Your task to perform on an android device: snooze an email in the gmail app Image 0: 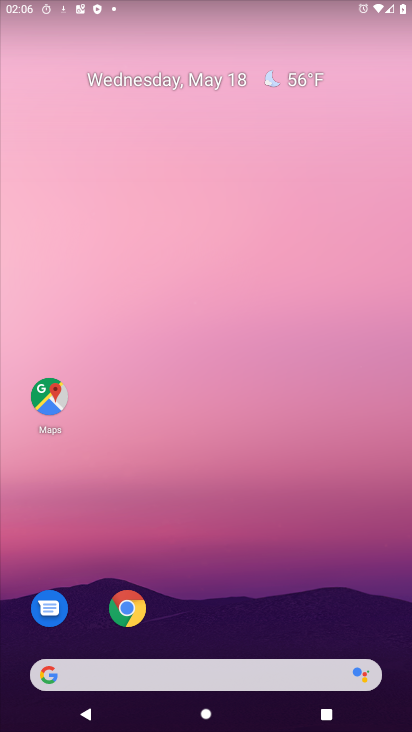
Step 0: drag from (276, 690) to (252, 261)
Your task to perform on an android device: snooze an email in the gmail app Image 1: 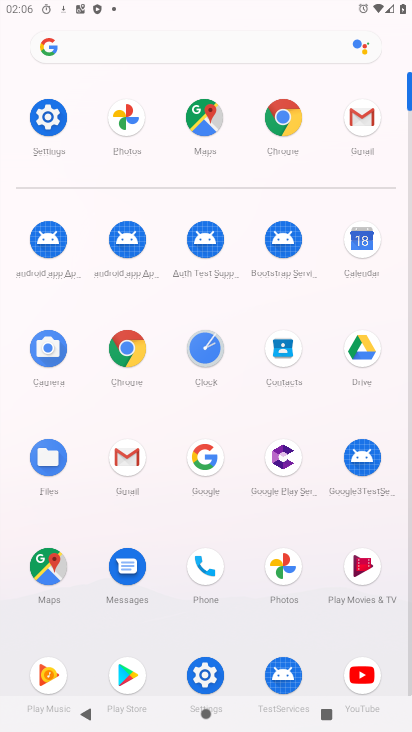
Step 1: click (144, 469)
Your task to perform on an android device: snooze an email in the gmail app Image 2: 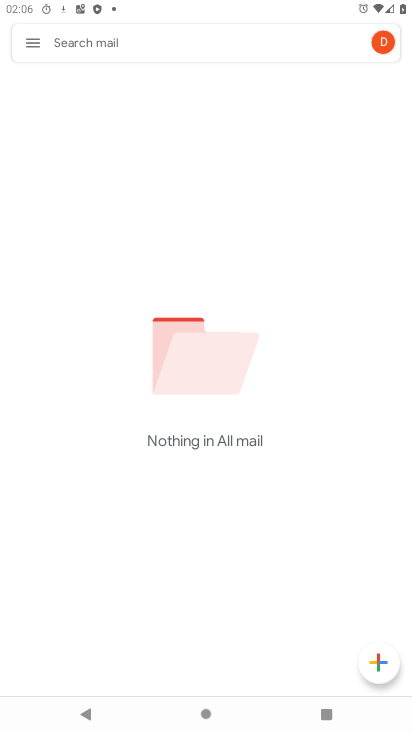
Step 2: click (30, 37)
Your task to perform on an android device: snooze an email in the gmail app Image 3: 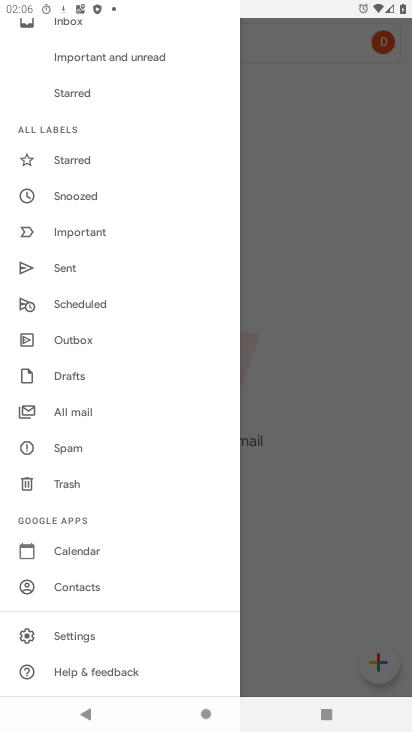
Step 3: click (72, 200)
Your task to perform on an android device: snooze an email in the gmail app Image 4: 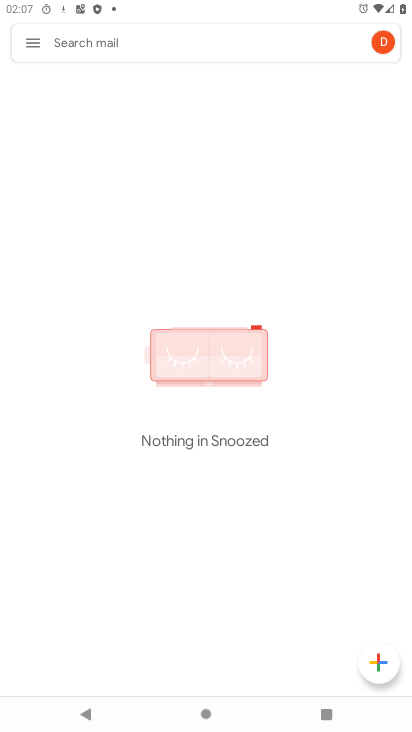
Step 4: task complete